Your task to perform on an android device: add a contact Image 0: 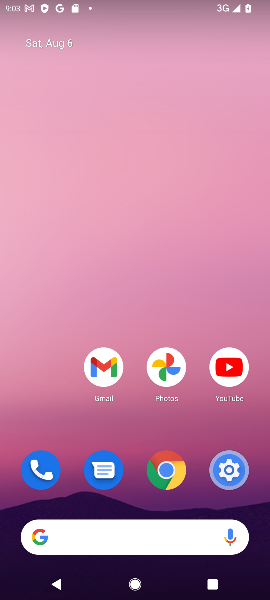
Step 0: drag from (161, 554) to (156, 97)
Your task to perform on an android device: add a contact Image 1: 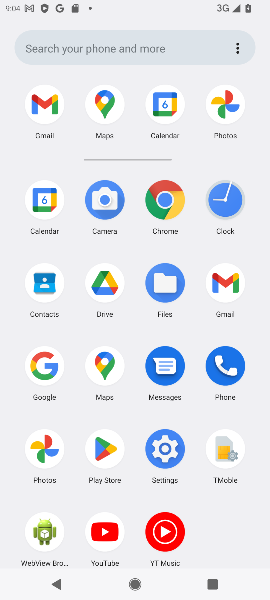
Step 1: click (47, 293)
Your task to perform on an android device: add a contact Image 2: 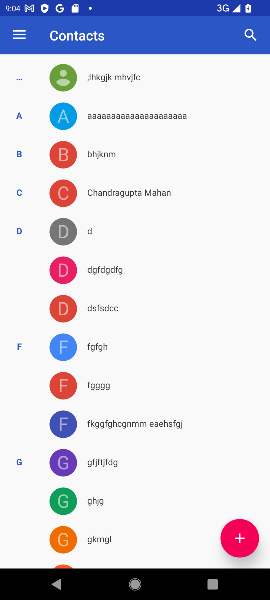
Step 2: click (243, 534)
Your task to perform on an android device: add a contact Image 3: 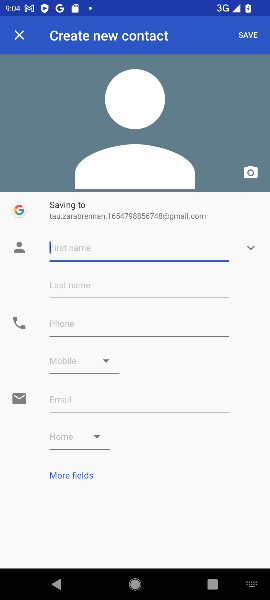
Step 3: type "judxghjk"
Your task to perform on an android device: add a contact Image 4: 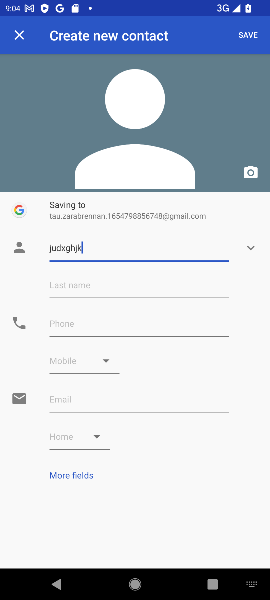
Step 4: click (122, 329)
Your task to perform on an android device: add a contact Image 5: 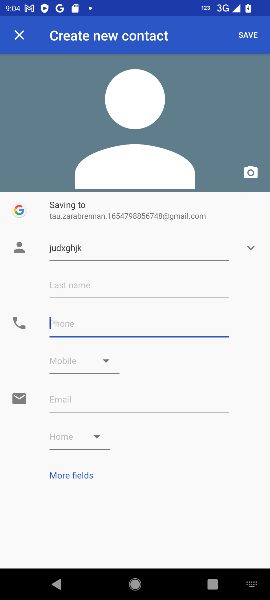
Step 5: type "987653456"
Your task to perform on an android device: add a contact Image 6: 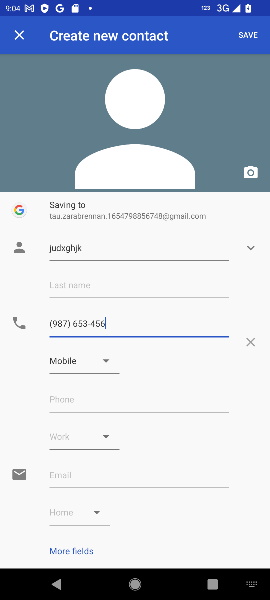
Step 6: click (244, 41)
Your task to perform on an android device: add a contact Image 7: 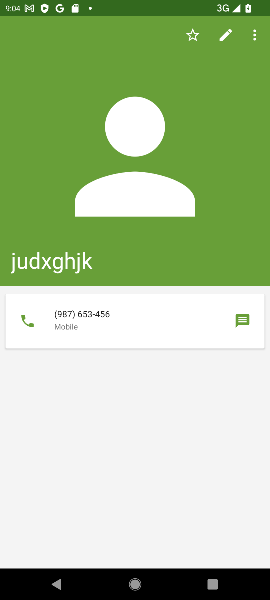
Step 7: task complete